Your task to perform on an android device: What's on my calendar tomorrow? Image 0: 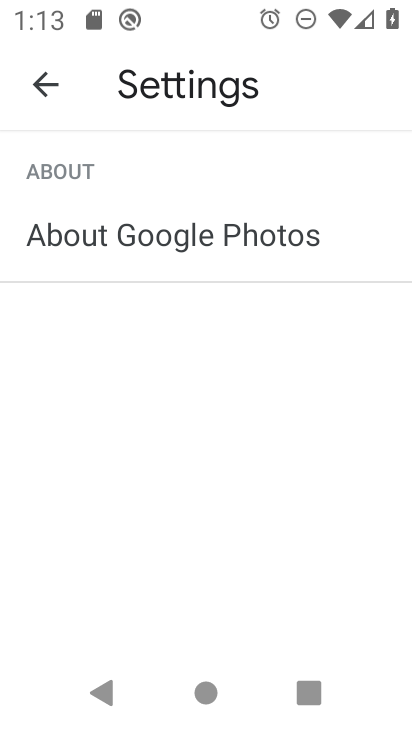
Step 0: press home button
Your task to perform on an android device: What's on my calendar tomorrow? Image 1: 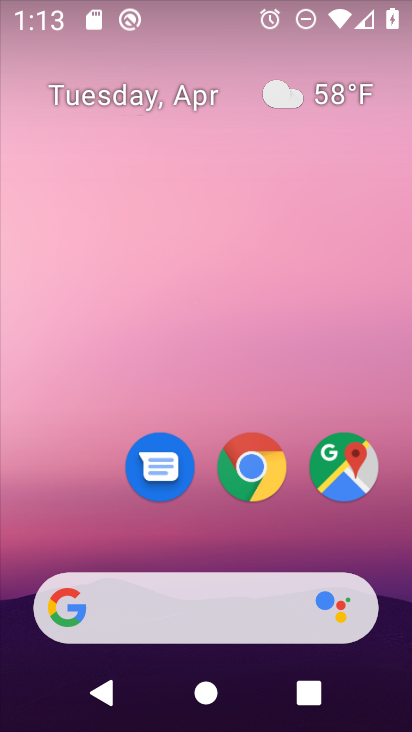
Step 1: click (97, 106)
Your task to perform on an android device: What's on my calendar tomorrow? Image 2: 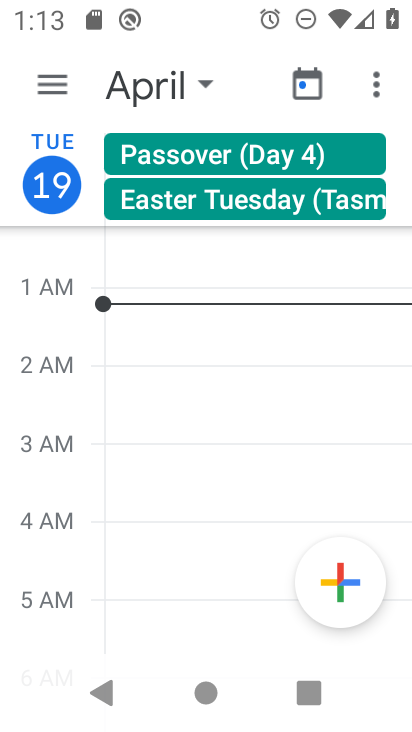
Step 2: click (180, 90)
Your task to perform on an android device: What's on my calendar tomorrow? Image 3: 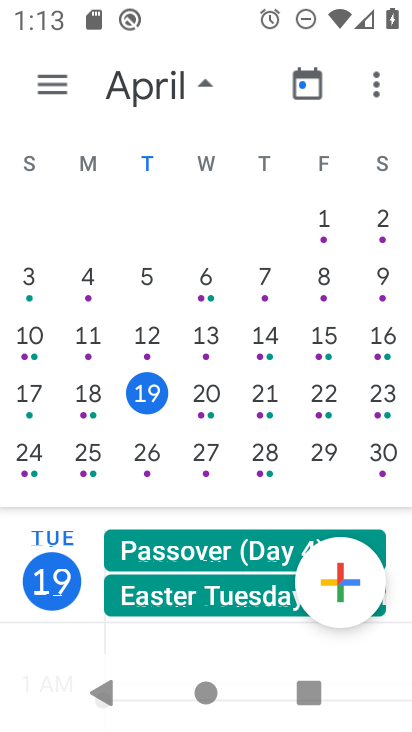
Step 3: click (222, 398)
Your task to perform on an android device: What's on my calendar tomorrow? Image 4: 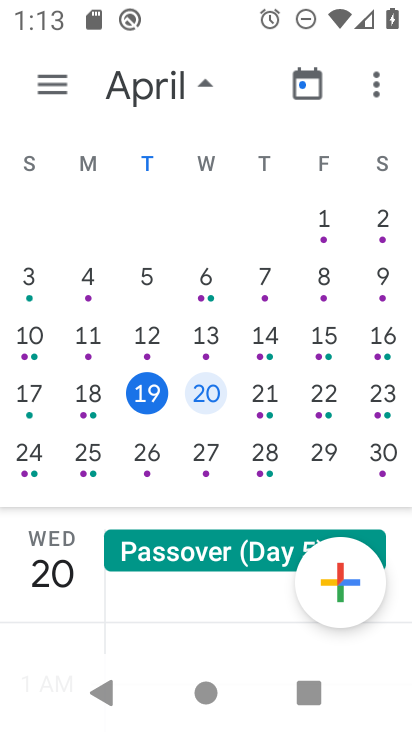
Step 4: task complete